Your task to perform on an android device: Open the web browser Image 0: 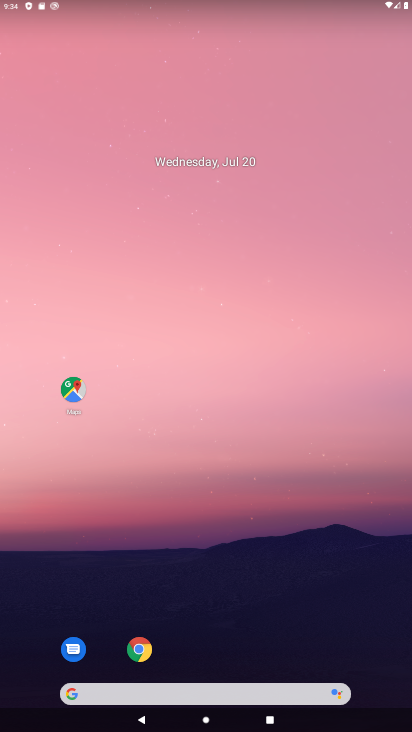
Step 0: click (137, 660)
Your task to perform on an android device: Open the web browser Image 1: 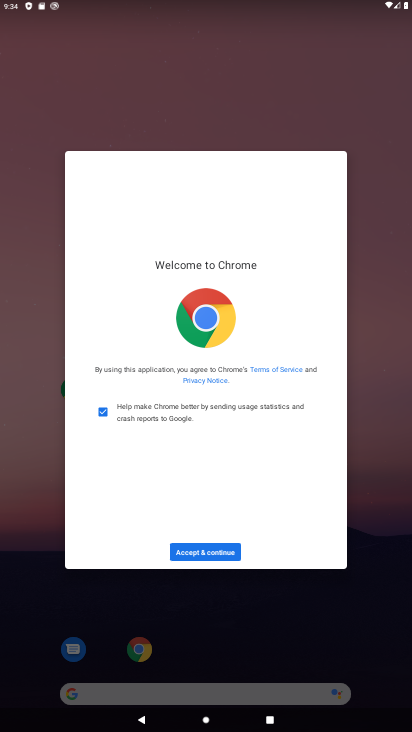
Step 1: click (214, 550)
Your task to perform on an android device: Open the web browser Image 2: 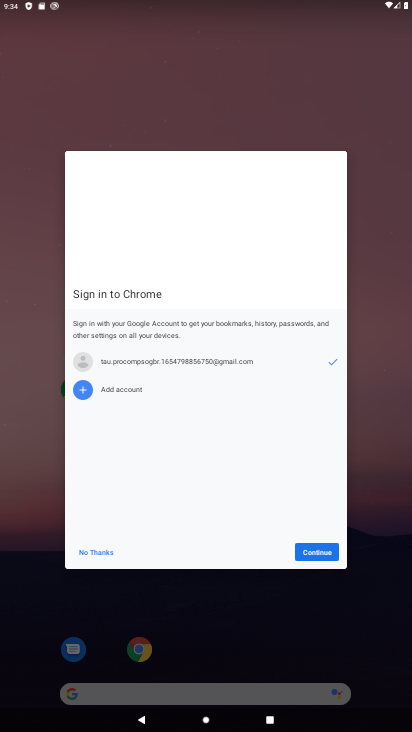
Step 2: click (325, 556)
Your task to perform on an android device: Open the web browser Image 3: 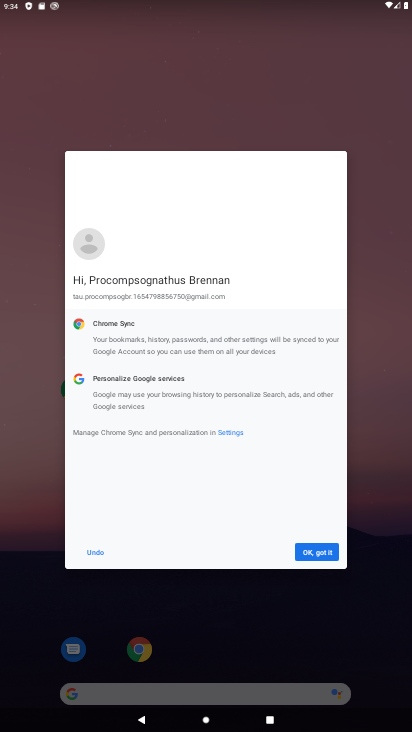
Step 3: click (325, 556)
Your task to perform on an android device: Open the web browser Image 4: 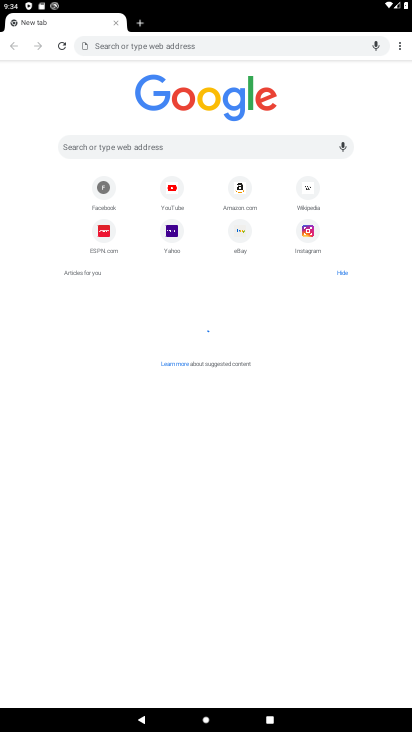
Step 4: task complete